Your task to perform on an android device: allow cookies in the chrome app Image 0: 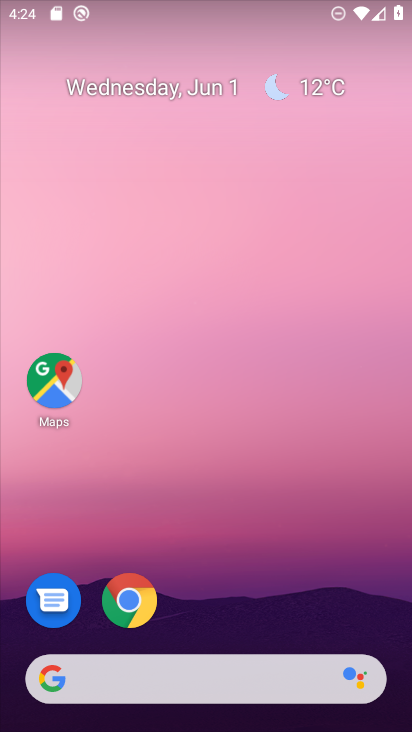
Step 0: click (125, 599)
Your task to perform on an android device: allow cookies in the chrome app Image 1: 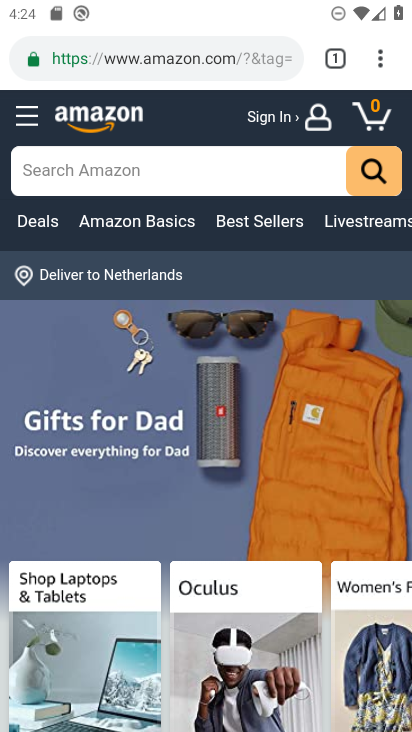
Step 1: click (382, 59)
Your task to perform on an android device: allow cookies in the chrome app Image 2: 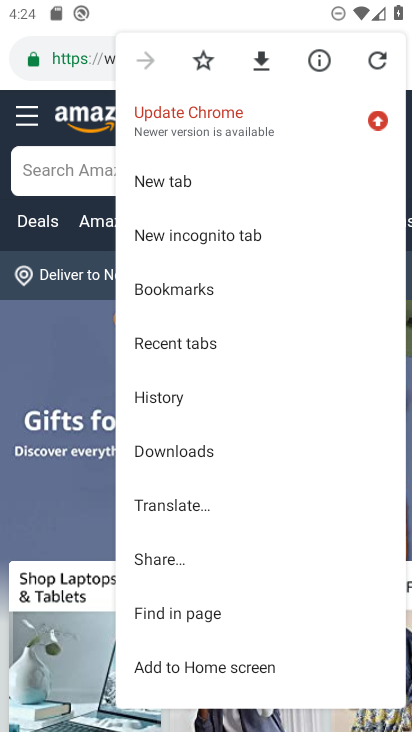
Step 2: drag from (271, 627) to (254, 271)
Your task to perform on an android device: allow cookies in the chrome app Image 3: 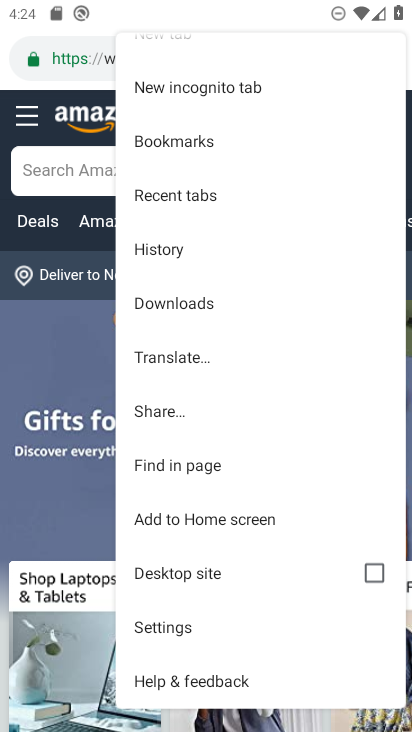
Step 3: click (191, 624)
Your task to perform on an android device: allow cookies in the chrome app Image 4: 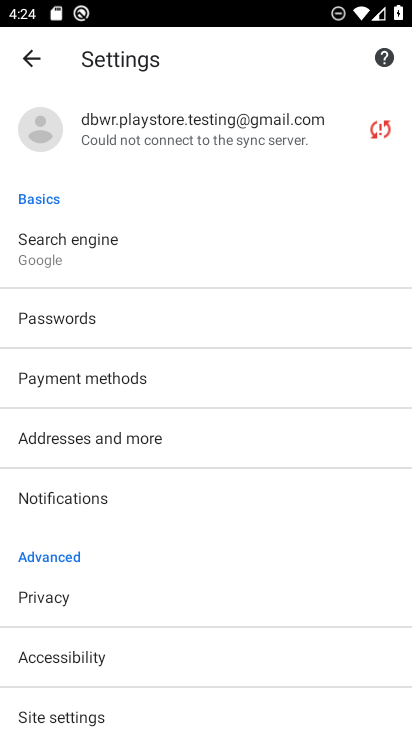
Step 4: drag from (253, 710) to (261, 238)
Your task to perform on an android device: allow cookies in the chrome app Image 5: 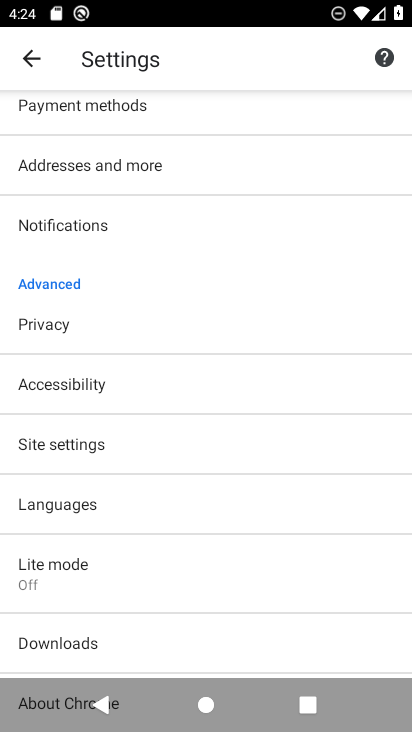
Step 5: click (86, 449)
Your task to perform on an android device: allow cookies in the chrome app Image 6: 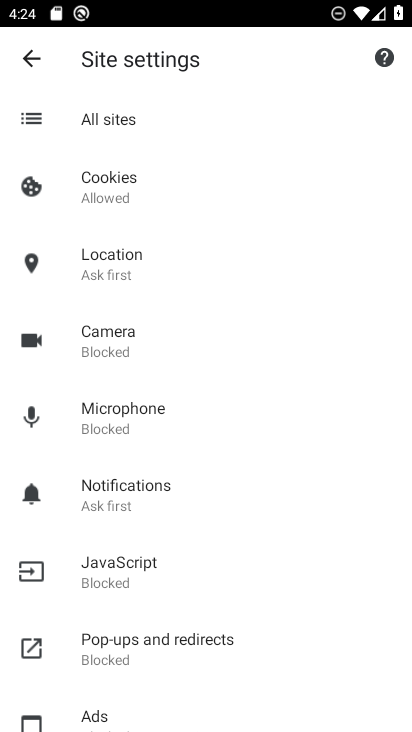
Step 6: click (103, 180)
Your task to perform on an android device: allow cookies in the chrome app Image 7: 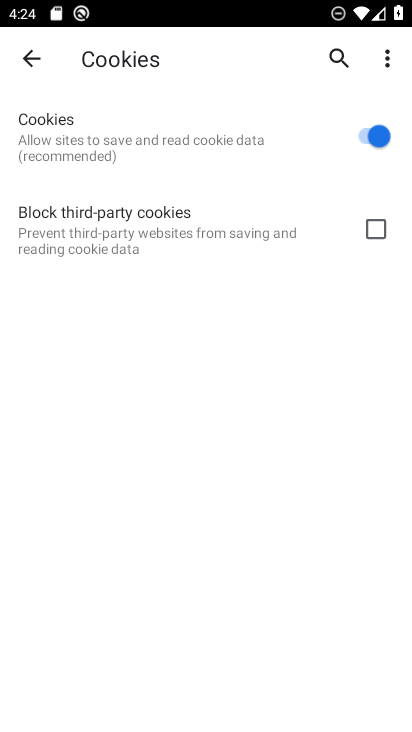
Step 7: task complete